Your task to perform on an android device: star an email in the gmail app Image 0: 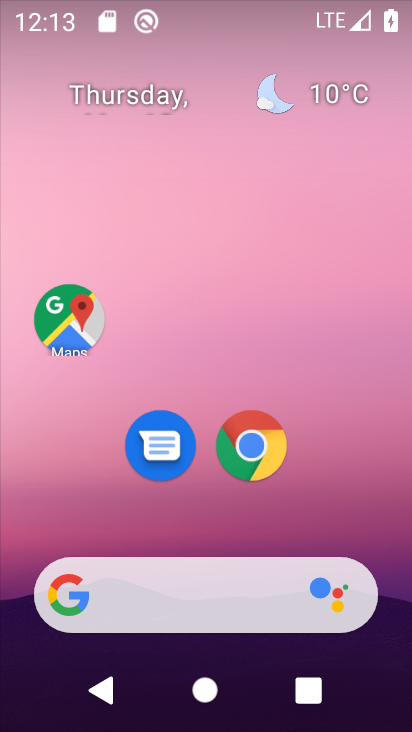
Step 0: drag from (195, 510) to (270, 33)
Your task to perform on an android device: star an email in the gmail app Image 1: 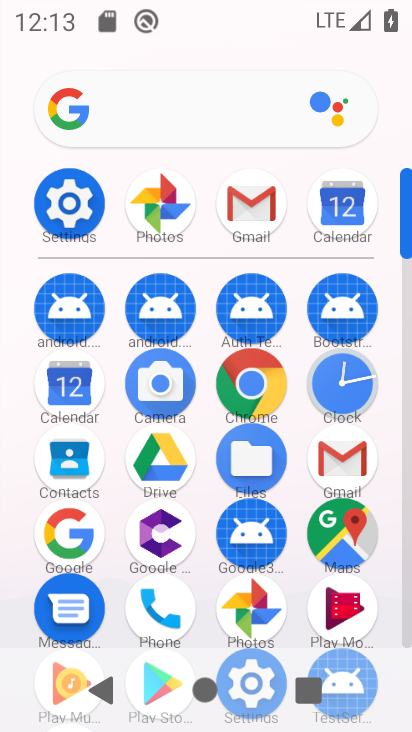
Step 1: click (338, 460)
Your task to perform on an android device: star an email in the gmail app Image 2: 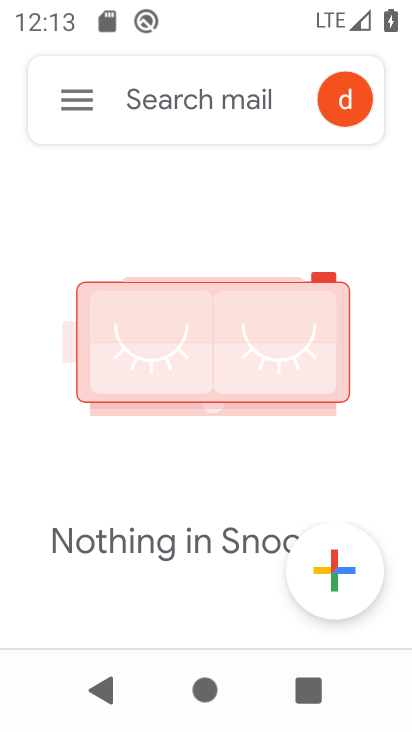
Step 2: click (67, 97)
Your task to perform on an android device: star an email in the gmail app Image 3: 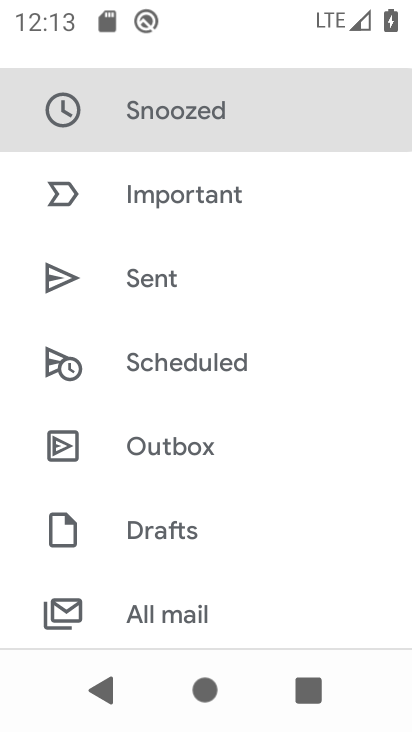
Step 3: click (165, 613)
Your task to perform on an android device: star an email in the gmail app Image 4: 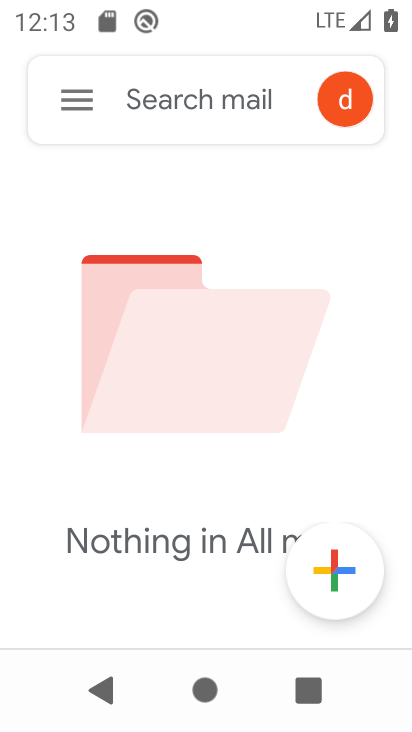
Step 4: task complete